Your task to perform on an android device: Open the map Image 0: 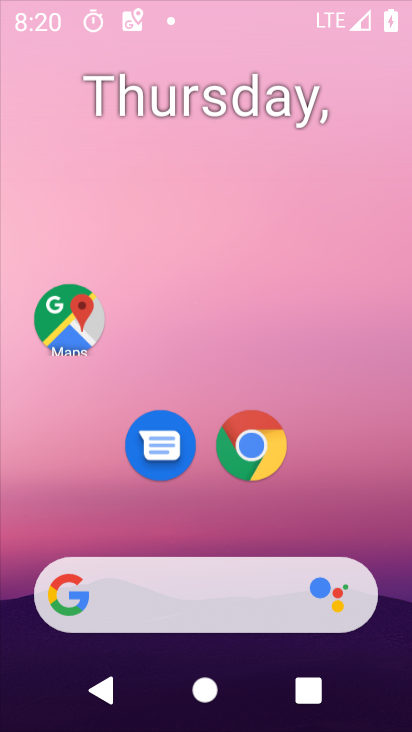
Step 0: drag from (190, 520) to (223, 176)
Your task to perform on an android device: Open the map Image 1: 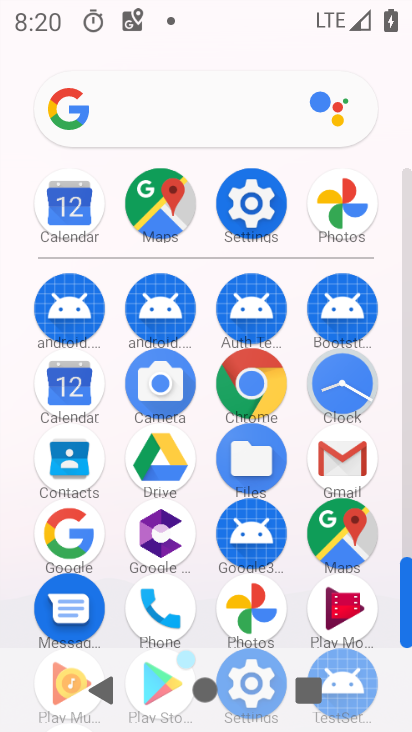
Step 1: drag from (196, 558) to (217, 236)
Your task to perform on an android device: Open the map Image 2: 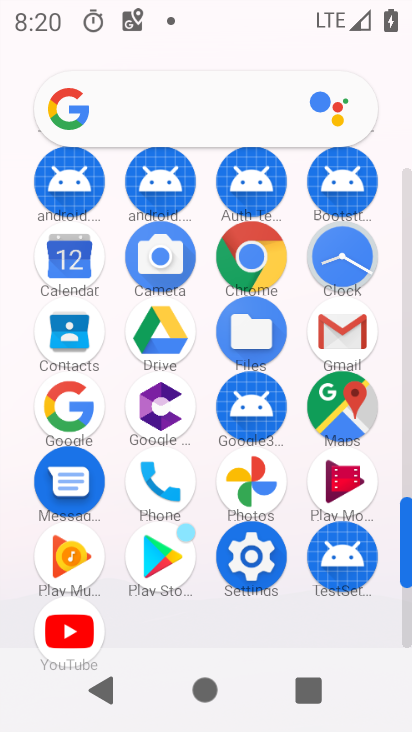
Step 2: click (343, 405)
Your task to perform on an android device: Open the map Image 3: 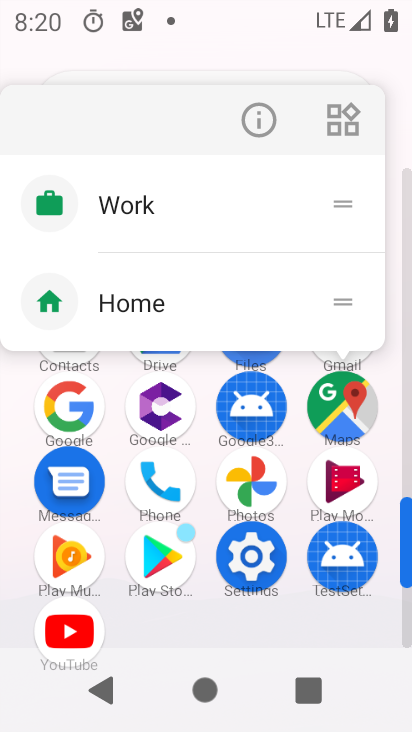
Step 3: click (248, 114)
Your task to perform on an android device: Open the map Image 4: 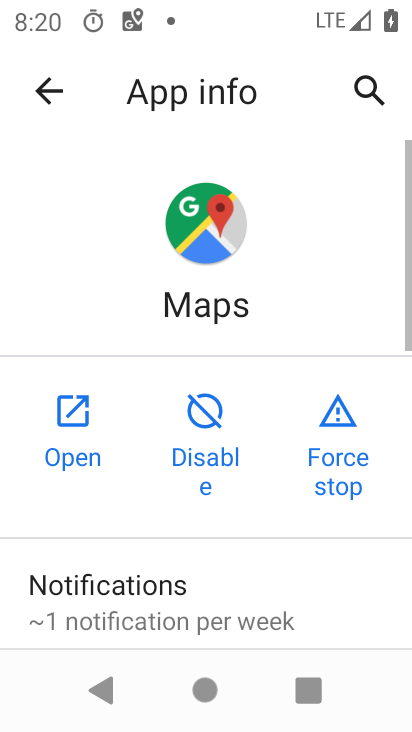
Step 4: click (82, 437)
Your task to perform on an android device: Open the map Image 5: 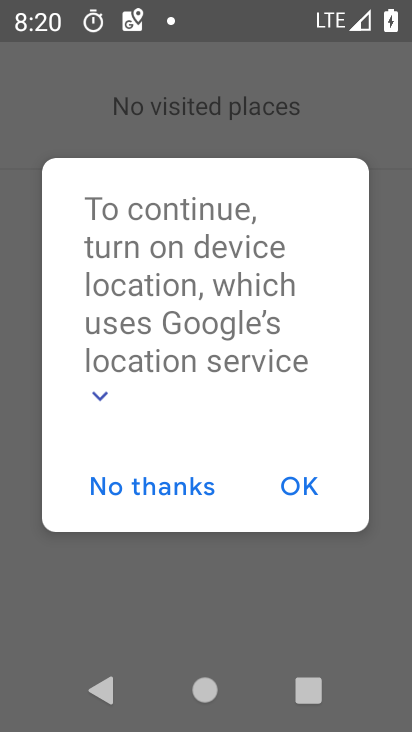
Step 5: press back button
Your task to perform on an android device: Open the map Image 6: 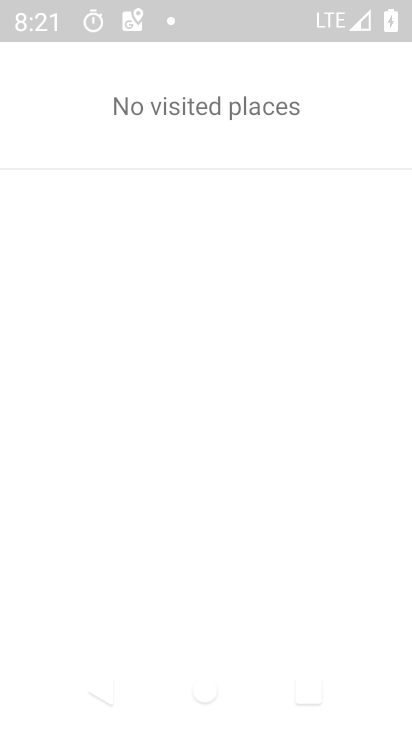
Step 6: press back button
Your task to perform on an android device: Open the map Image 7: 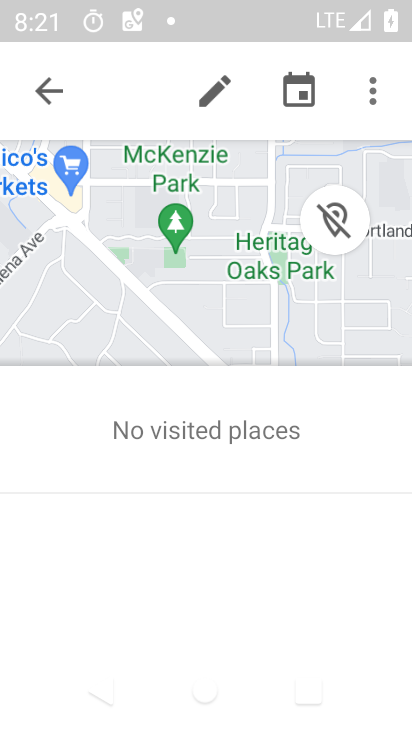
Step 7: click (66, 85)
Your task to perform on an android device: Open the map Image 8: 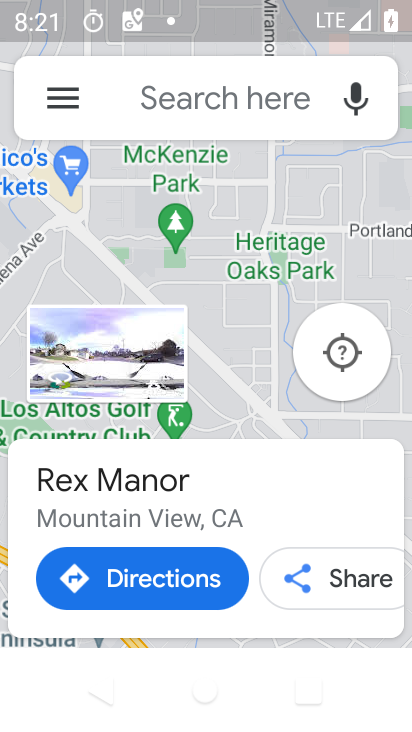
Step 8: task complete